Your task to perform on an android device: Open the calendar app, open the side menu, and click the "Day" option Image 0: 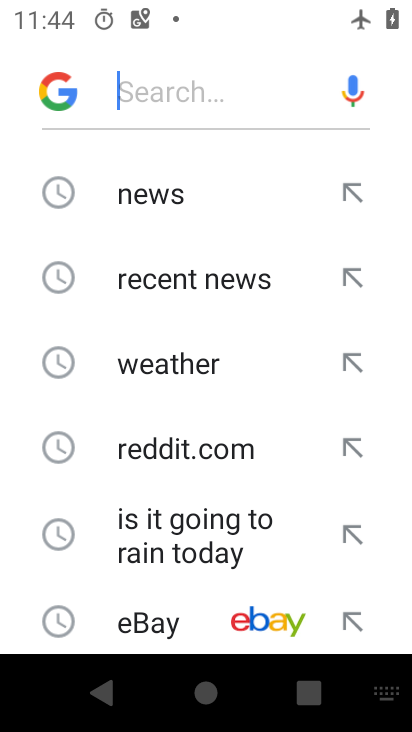
Step 0: press home button
Your task to perform on an android device: Open the calendar app, open the side menu, and click the "Day" option Image 1: 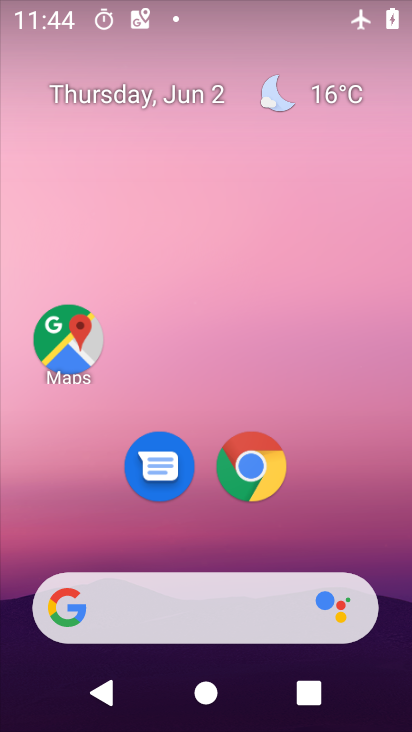
Step 1: drag from (215, 452) to (235, 128)
Your task to perform on an android device: Open the calendar app, open the side menu, and click the "Day" option Image 2: 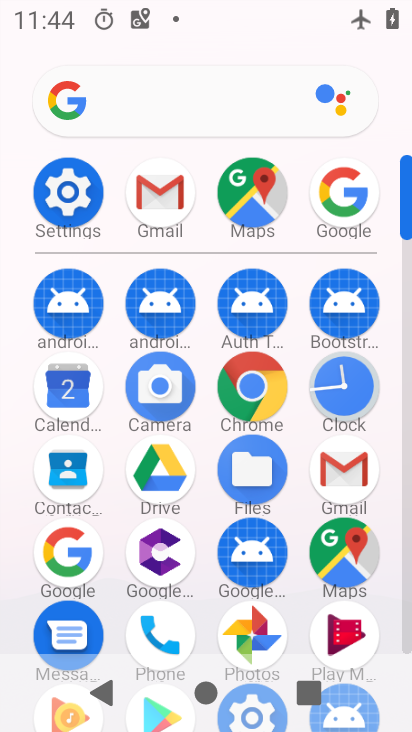
Step 2: click (71, 392)
Your task to perform on an android device: Open the calendar app, open the side menu, and click the "Day" option Image 3: 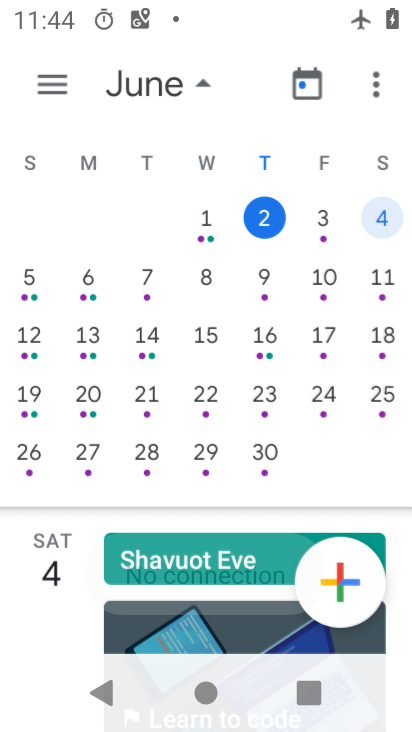
Step 3: click (48, 87)
Your task to perform on an android device: Open the calendar app, open the side menu, and click the "Day" option Image 4: 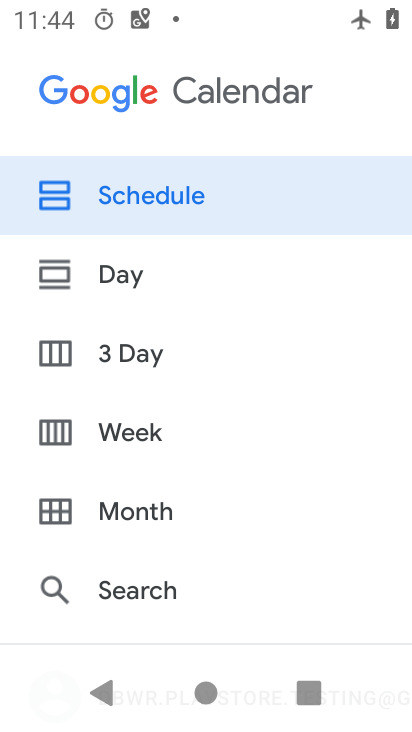
Step 4: click (125, 274)
Your task to perform on an android device: Open the calendar app, open the side menu, and click the "Day" option Image 5: 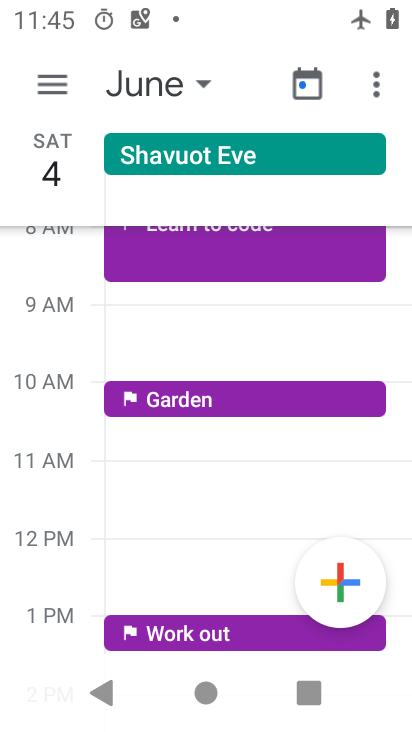
Step 5: click (72, 87)
Your task to perform on an android device: Open the calendar app, open the side menu, and click the "Day" option Image 6: 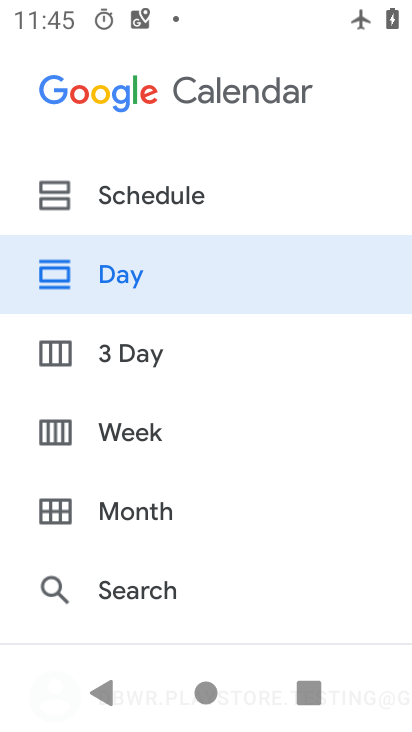
Step 6: task complete